Your task to perform on an android device: Show me recent news Image 0: 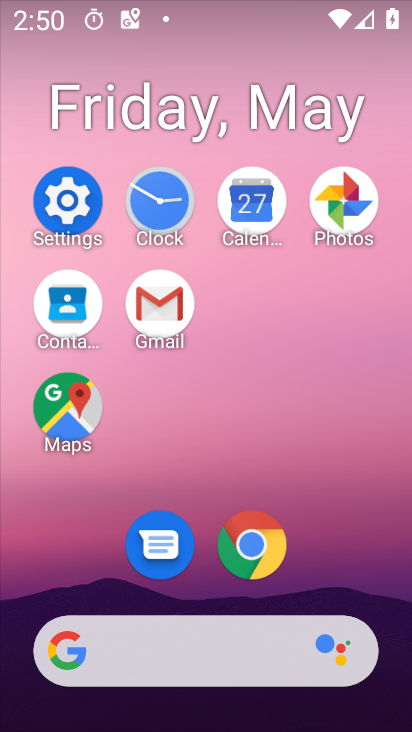
Step 0: drag from (336, 379) to (288, 71)
Your task to perform on an android device: Show me recent news Image 1: 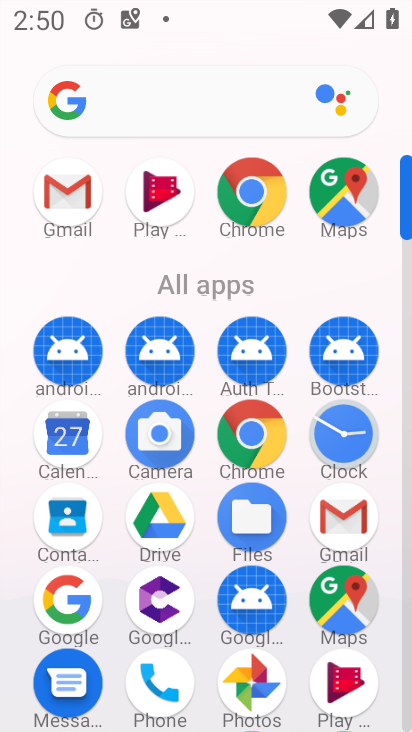
Step 1: drag from (75, 602) to (240, 314)
Your task to perform on an android device: Show me recent news Image 2: 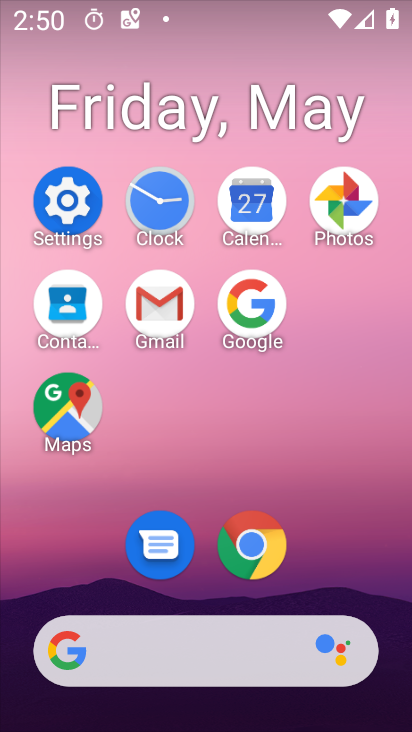
Step 2: click (238, 311)
Your task to perform on an android device: Show me recent news Image 3: 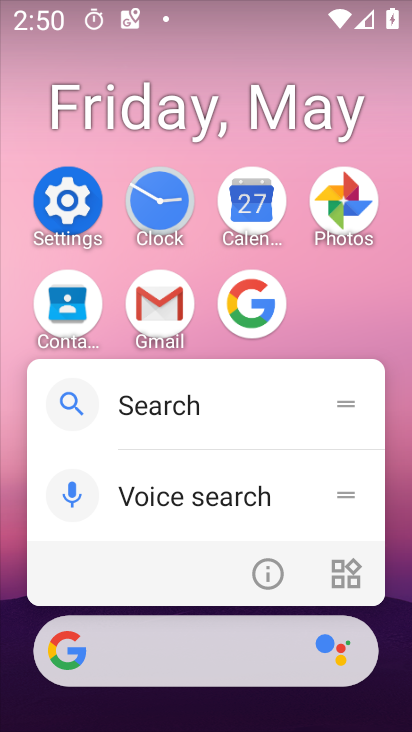
Step 3: click (238, 311)
Your task to perform on an android device: Show me recent news Image 4: 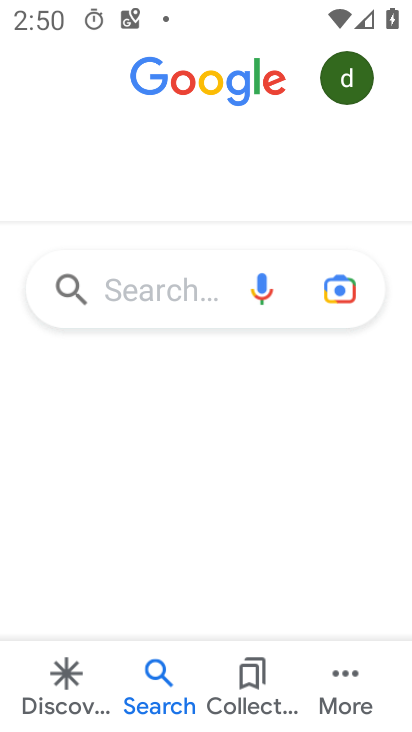
Step 4: click (156, 289)
Your task to perform on an android device: Show me recent news Image 5: 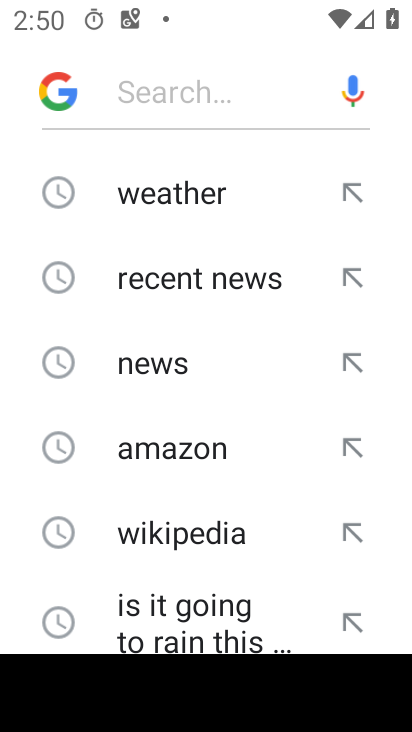
Step 5: click (156, 289)
Your task to perform on an android device: Show me recent news Image 6: 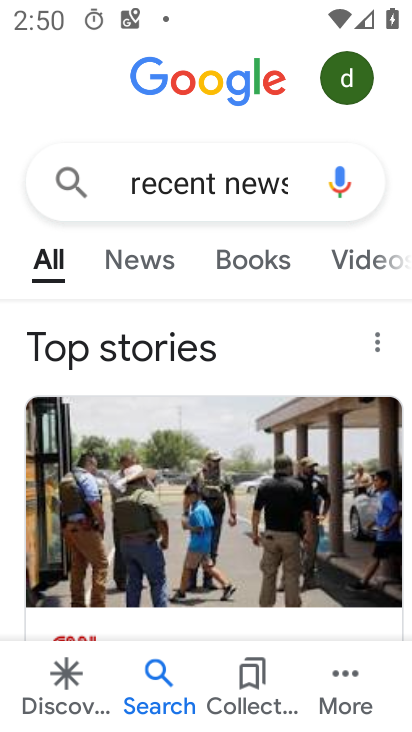
Step 6: task complete